Your task to perform on an android device: move an email to a new category in the gmail app Image 0: 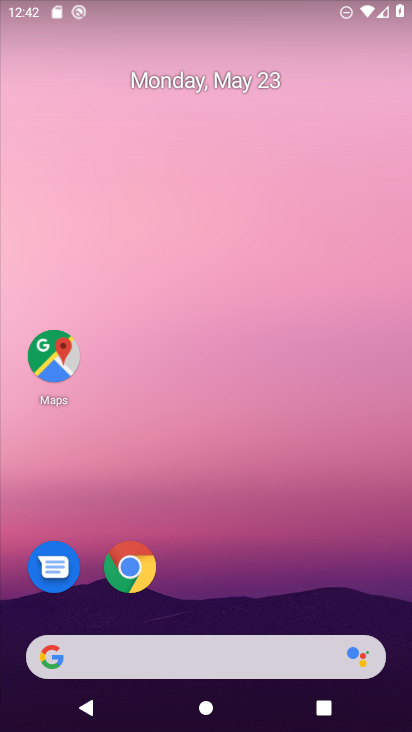
Step 0: drag from (209, 597) to (208, 153)
Your task to perform on an android device: move an email to a new category in the gmail app Image 1: 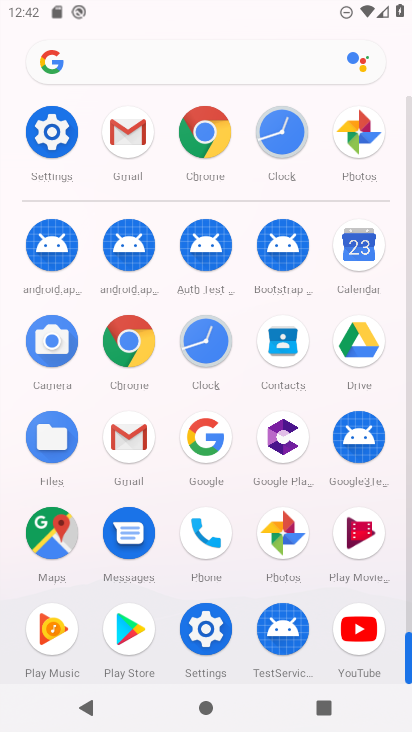
Step 1: click (142, 133)
Your task to perform on an android device: move an email to a new category in the gmail app Image 2: 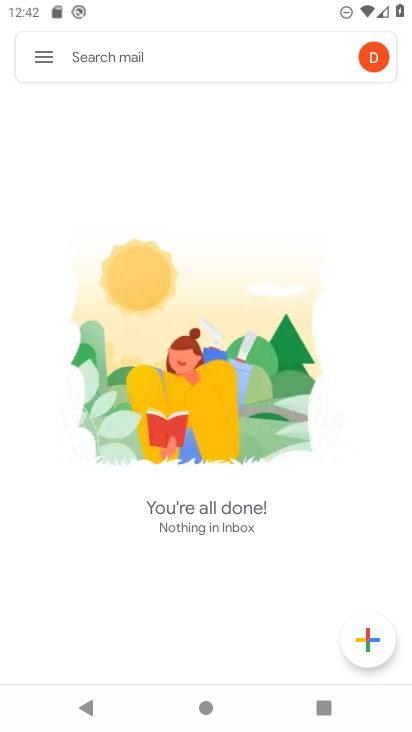
Step 2: task complete